Your task to perform on an android device: turn off priority inbox in the gmail app Image 0: 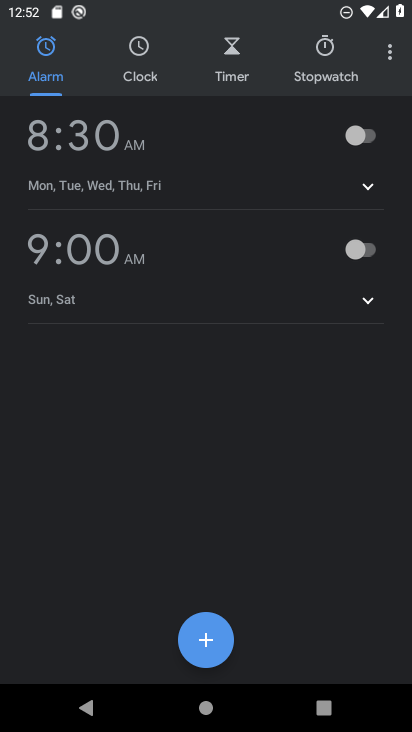
Step 0: press home button
Your task to perform on an android device: turn off priority inbox in the gmail app Image 1: 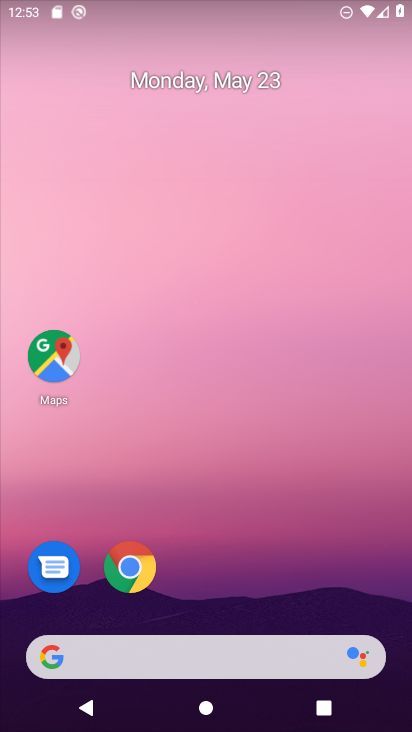
Step 1: drag from (219, 624) to (260, 49)
Your task to perform on an android device: turn off priority inbox in the gmail app Image 2: 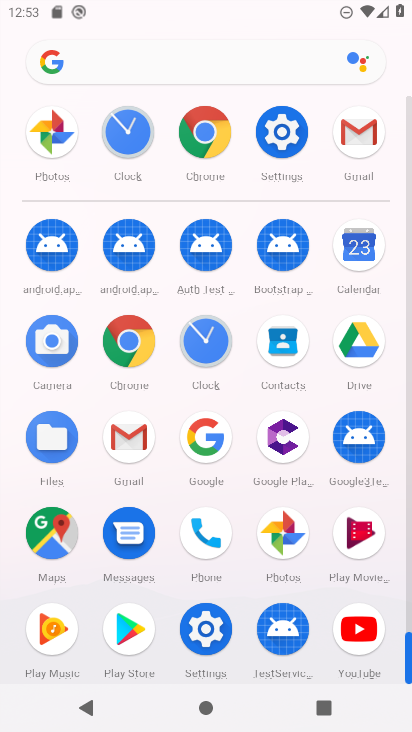
Step 2: click (370, 133)
Your task to perform on an android device: turn off priority inbox in the gmail app Image 3: 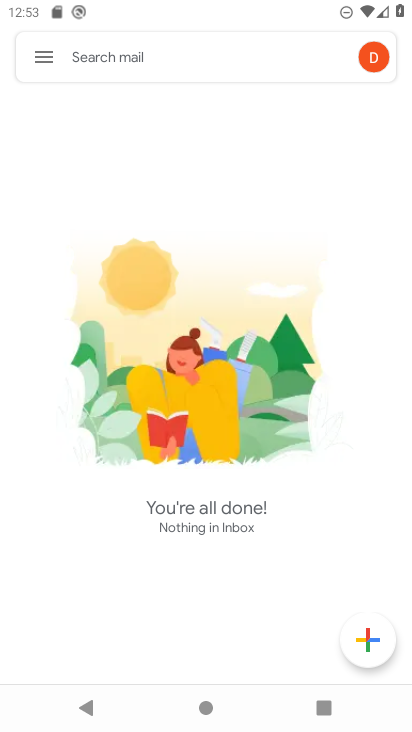
Step 3: click (48, 69)
Your task to perform on an android device: turn off priority inbox in the gmail app Image 4: 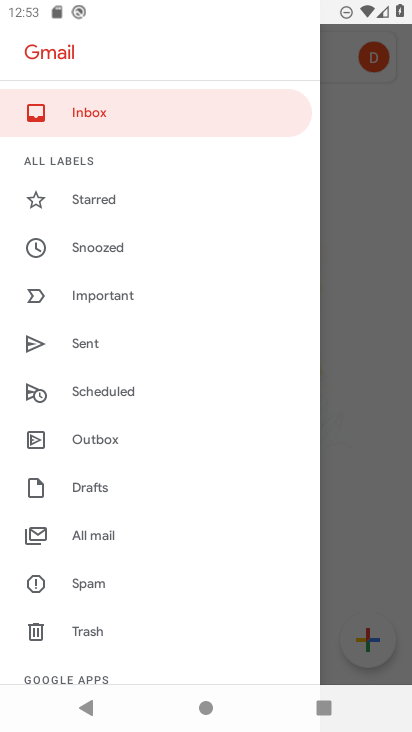
Step 4: drag from (102, 644) to (173, 199)
Your task to perform on an android device: turn off priority inbox in the gmail app Image 5: 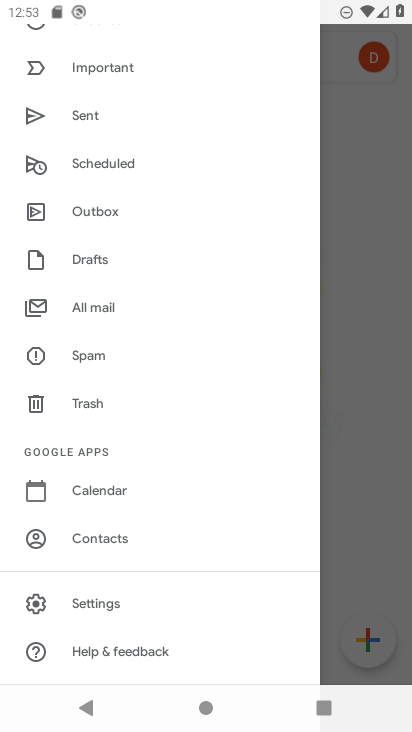
Step 5: click (134, 613)
Your task to perform on an android device: turn off priority inbox in the gmail app Image 6: 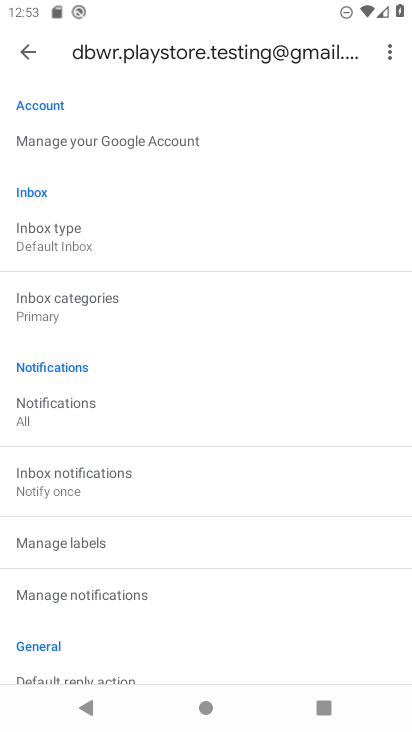
Step 6: click (112, 250)
Your task to perform on an android device: turn off priority inbox in the gmail app Image 7: 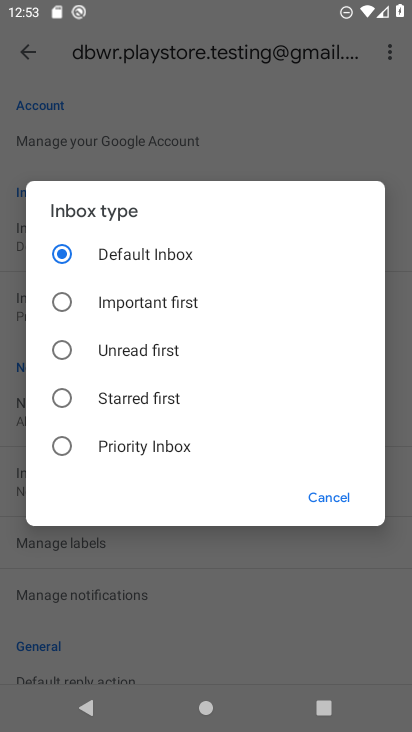
Step 7: click (148, 320)
Your task to perform on an android device: turn off priority inbox in the gmail app Image 8: 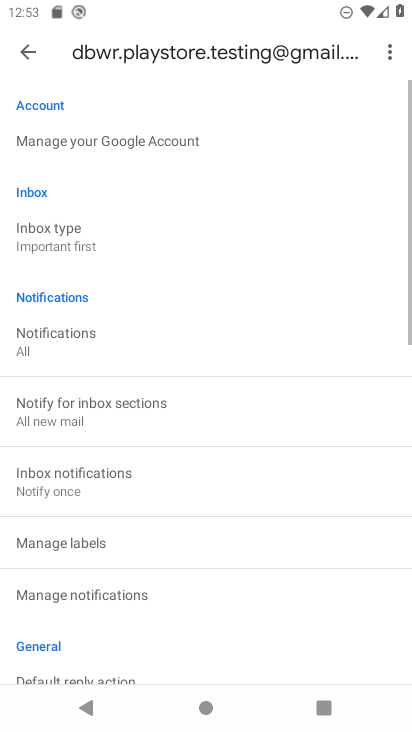
Step 8: task complete